Your task to perform on an android device: turn notification dots off Image 0: 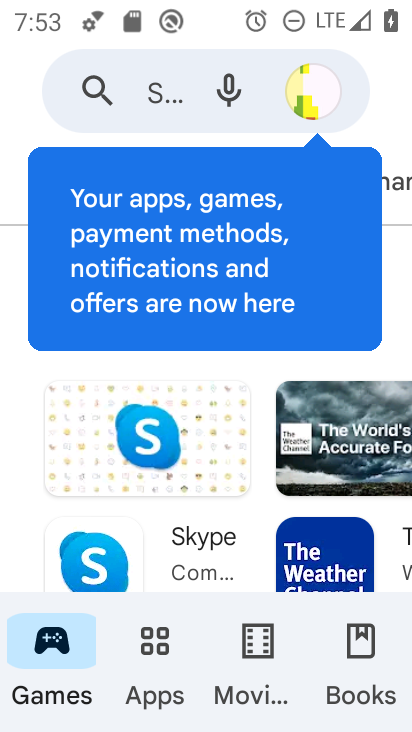
Step 0: press home button
Your task to perform on an android device: turn notification dots off Image 1: 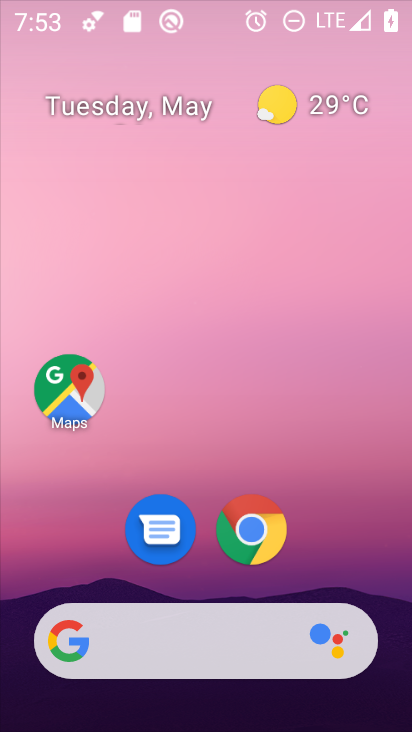
Step 1: drag from (402, 637) to (243, 85)
Your task to perform on an android device: turn notification dots off Image 2: 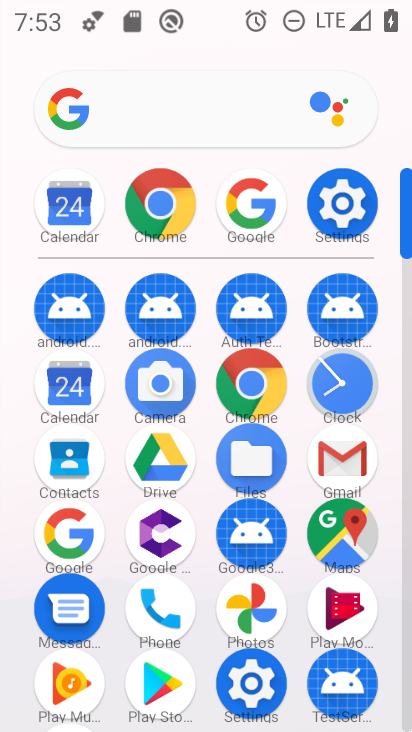
Step 2: click (268, 682)
Your task to perform on an android device: turn notification dots off Image 3: 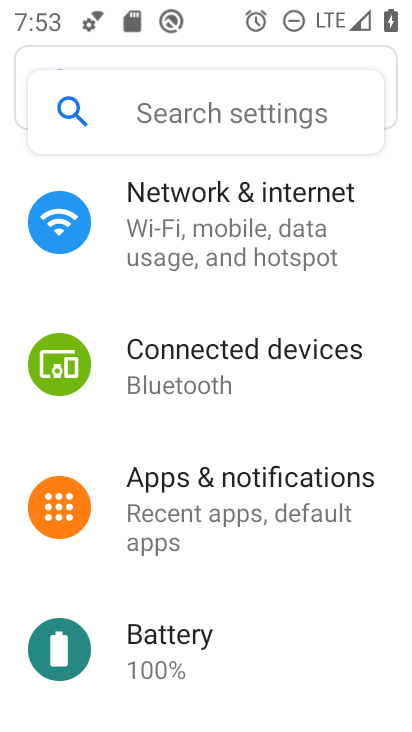
Step 3: click (311, 484)
Your task to perform on an android device: turn notification dots off Image 4: 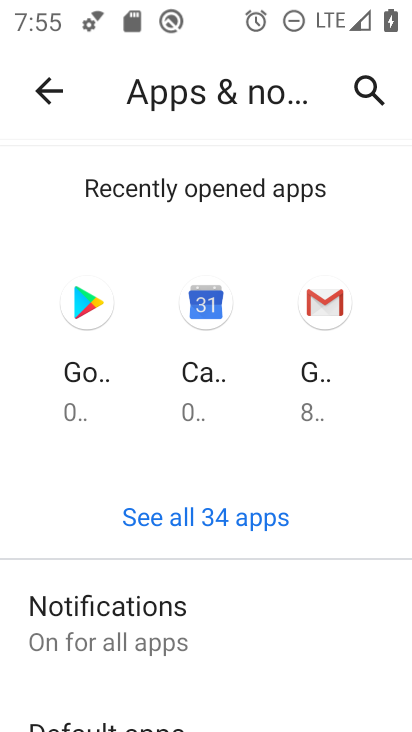
Step 4: click (124, 625)
Your task to perform on an android device: turn notification dots off Image 5: 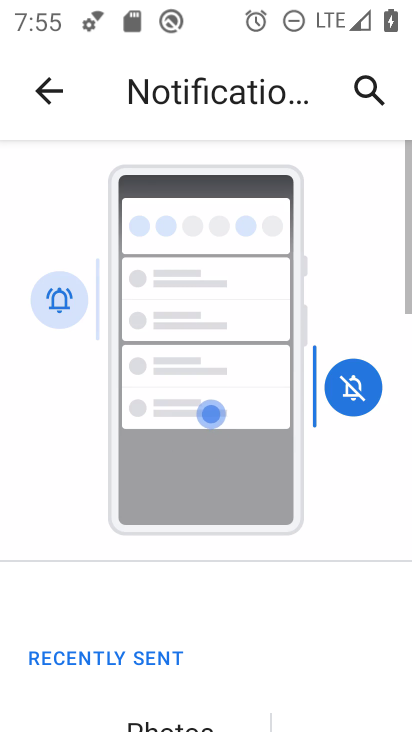
Step 5: drag from (205, 632) to (98, 25)
Your task to perform on an android device: turn notification dots off Image 6: 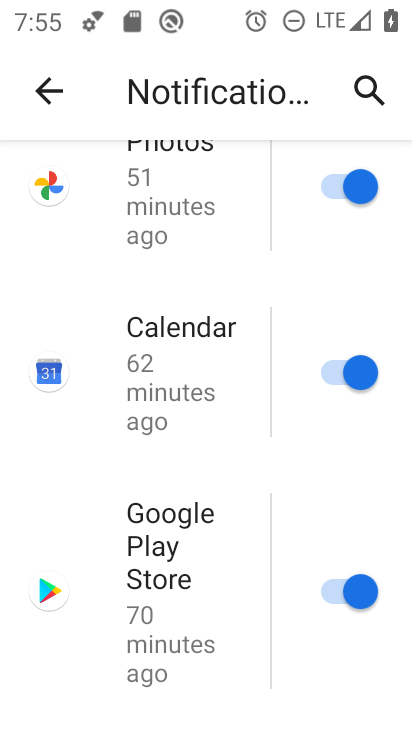
Step 6: drag from (290, 631) to (235, 140)
Your task to perform on an android device: turn notification dots off Image 7: 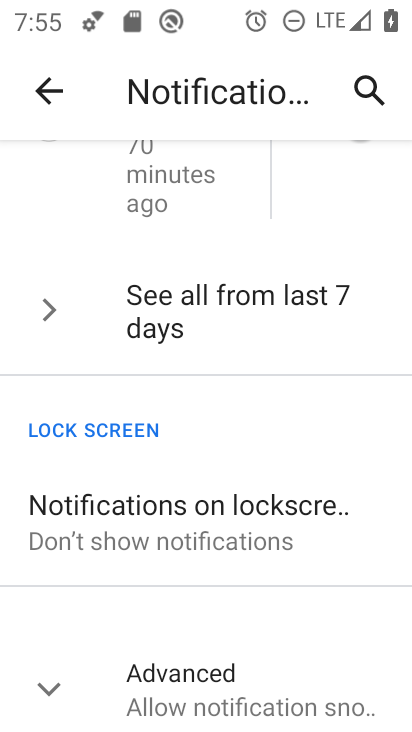
Step 7: drag from (153, 666) to (78, 165)
Your task to perform on an android device: turn notification dots off Image 8: 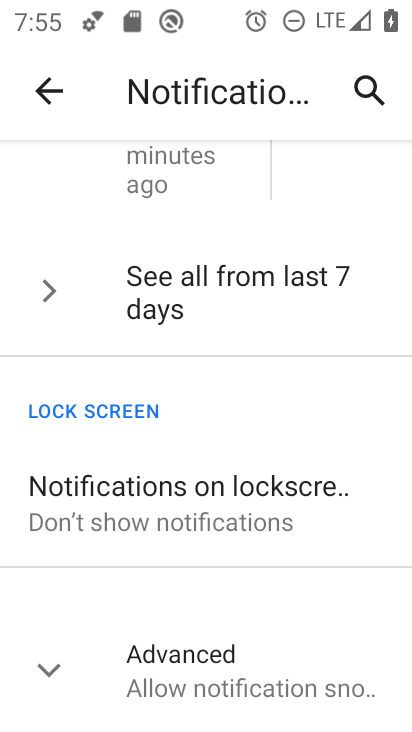
Step 8: click (96, 677)
Your task to perform on an android device: turn notification dots off Image 9: 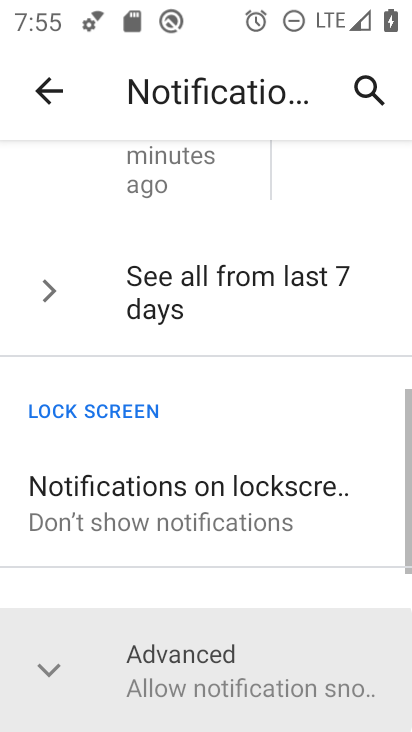
Step 9: drag from (96, 676) to (121, 181)
Your task to perform on an android device: turn notification dots off Image 10: 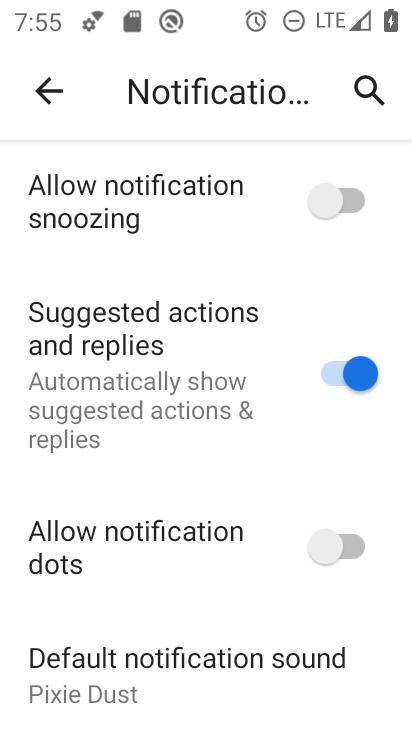
Step 10: click (181, 551)
Your task to perform on an android device: turn notification dots off Image 11: 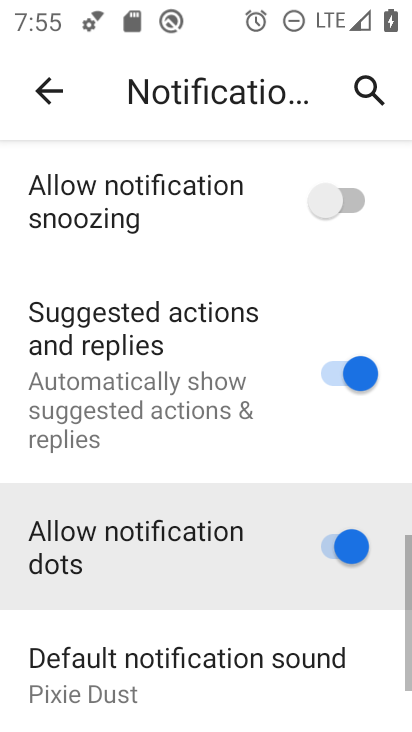
Step 11: click (181, 551)
Your task to perform on an android device: turn notification dots off Image 12: 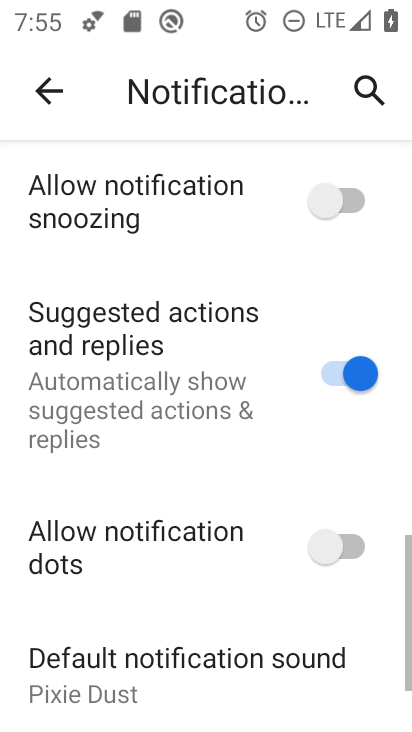
Step 12: task complete